Your task to perform on an android device: search for starred emails in the gmail app Image 0: 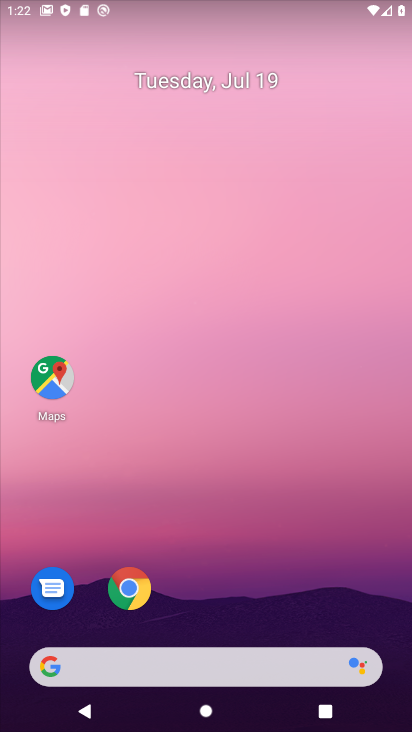
Step 0: drag from (285, 630) to (210, 48)
Your task to perform on an android device: search for starred emails in the gmail app Image 1: 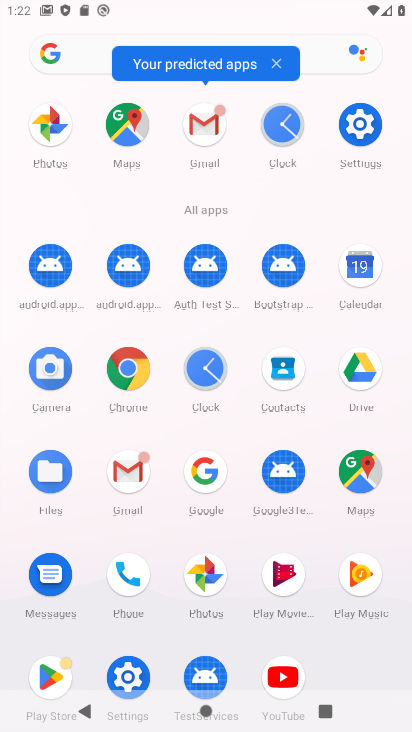
Step 1: click (207, 118)
Your task to perform on an android device: search for starred emails in the gmail app Image 2: 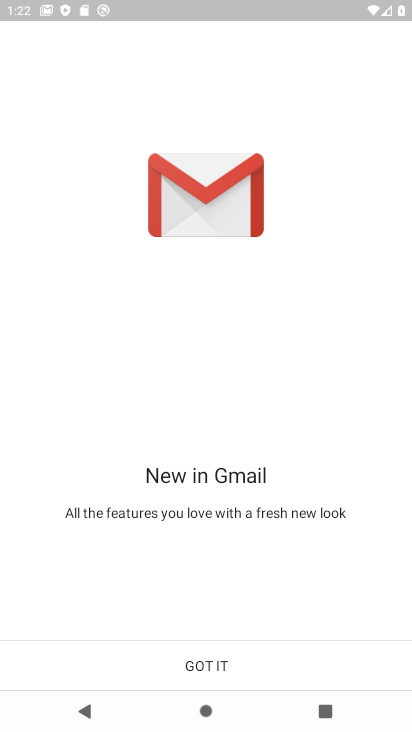
Step 2: click (224, 663)
Your task to perform on an android device: search for starred emails in the gmail app Image 3: 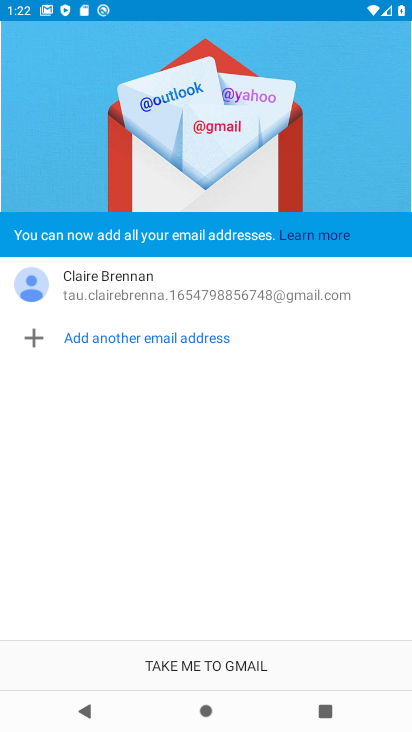
Step 3: click (224, 663)
Your task to perform on an android device: search for starred emails in the gmail app Image 4: 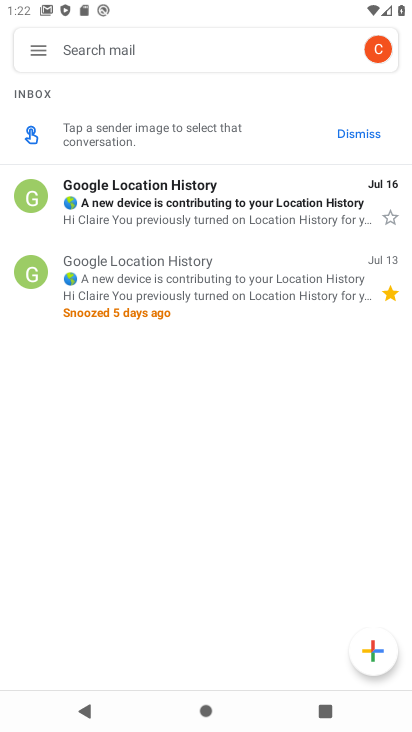
Step 4: click (39, 57)
Your task to perform on an android device: search for starred emails in the gmail app Image 5: 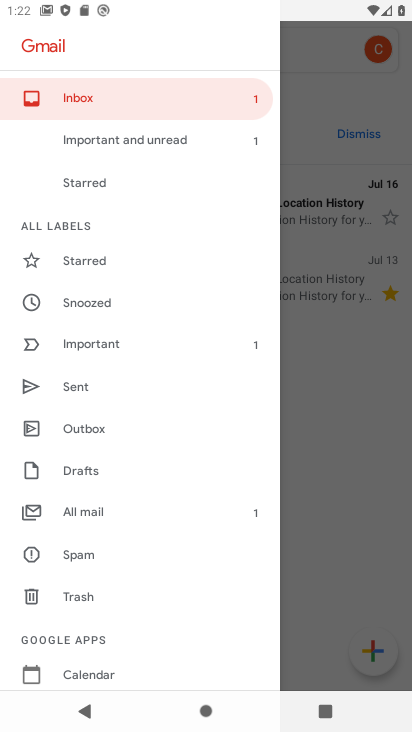
Step 5: click (87, 264)
Your task to perform on an android device: search for starred emails in the gmail app Image 6: 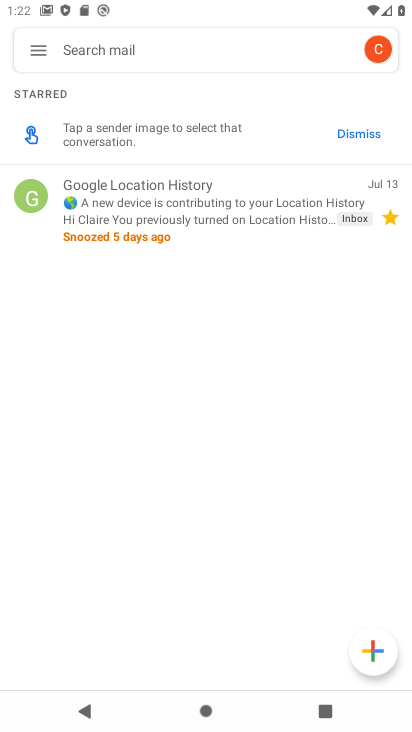
Step 6: task complete